Your task to perform on an android device: empty trash in the gmail app Image 0: 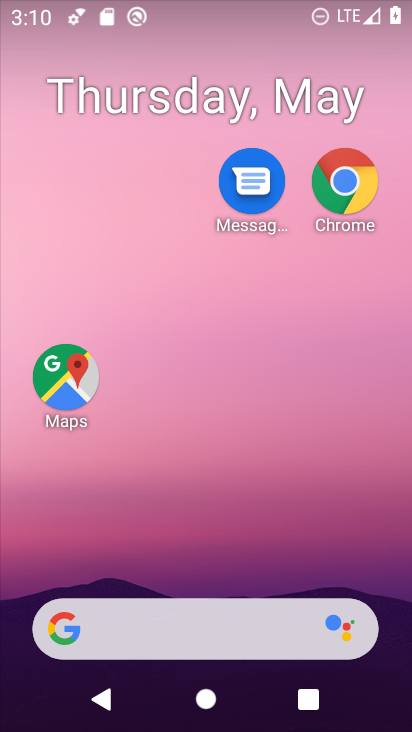
Step 0: drag from (155, 456) to (242, 37)
Your task to perform on an android device: empty trash in the gmail app Image 1: 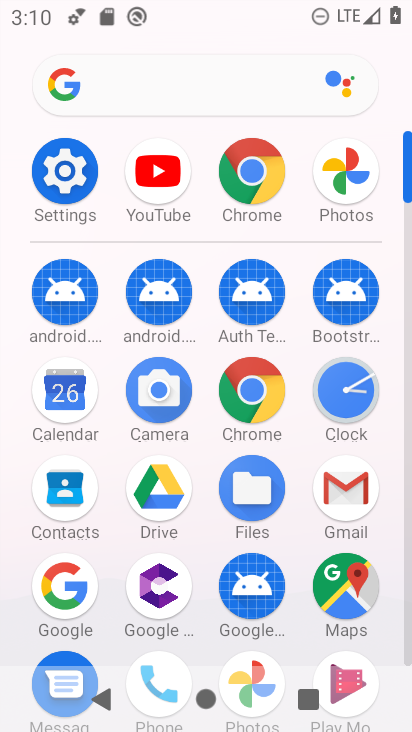
Step 1: click (323, 491)
Your task to perform on an android device: empty trash in the gmail app Image 2: 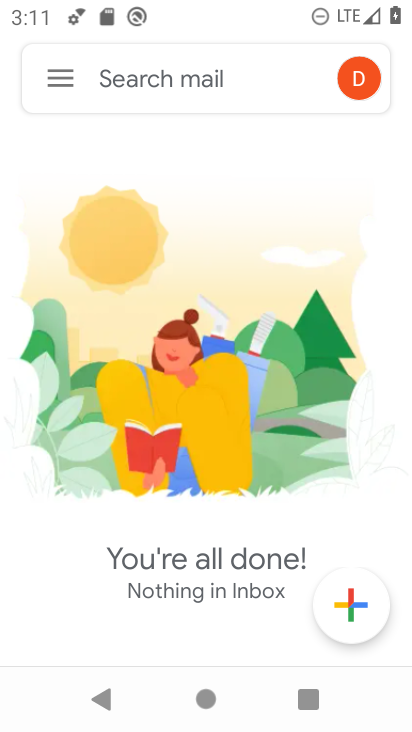
Step 2: click (64, 76)
Your task to perform on an android device: empty trash in the gmail app Image 3: 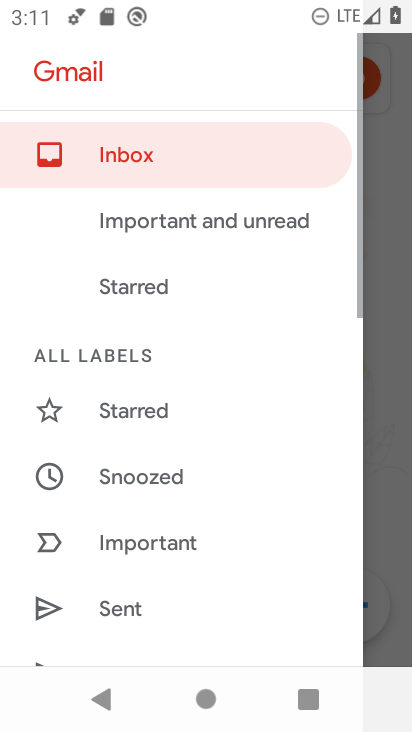
Step 3: drag from (227, 616) to (205, 13)
Your task to perform on an android device: empty trash in the gmail app Image 4: 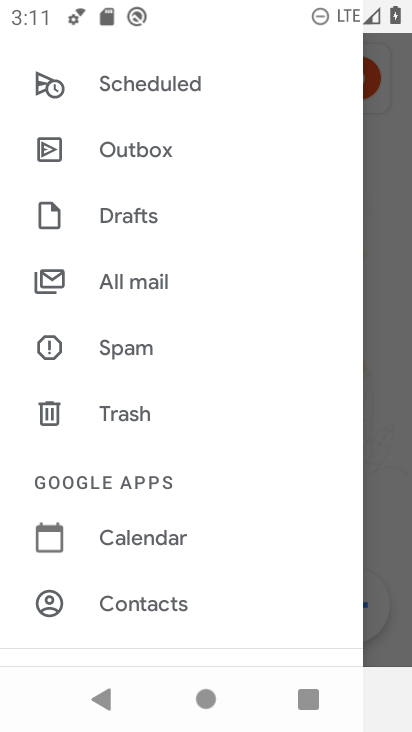
Step 4: click (143, 425)
Your task to perform on an android device: empty trash in the gmail app Image 5: 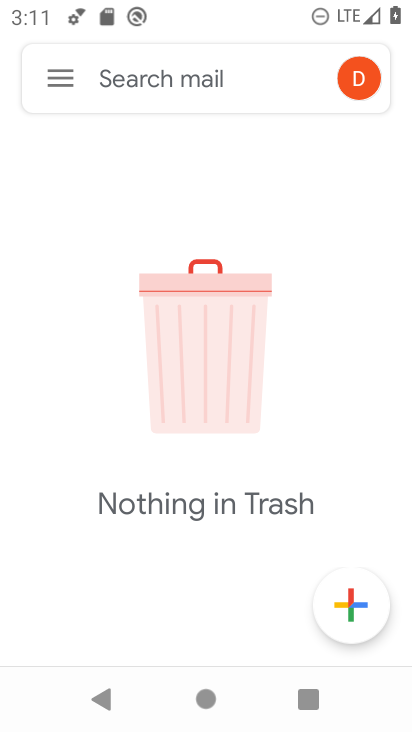
Step 5: task complete